Your task to perform on an android device: snooze an email in the gmail app Image 0: 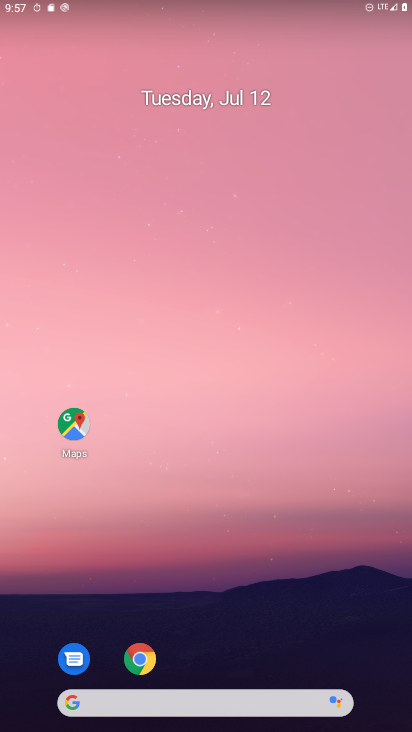
Step 0: drag from (361, 663) to (232, 75)
Your task to perform on an android device: snooze an email in the gmail app Image 1: 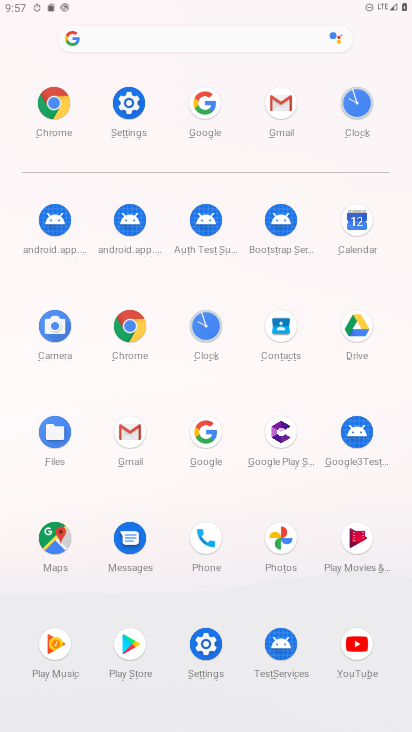
Step 1: click (131, 429)
Your task to perform on an android device: snooze an email in the gmail app Image 2: 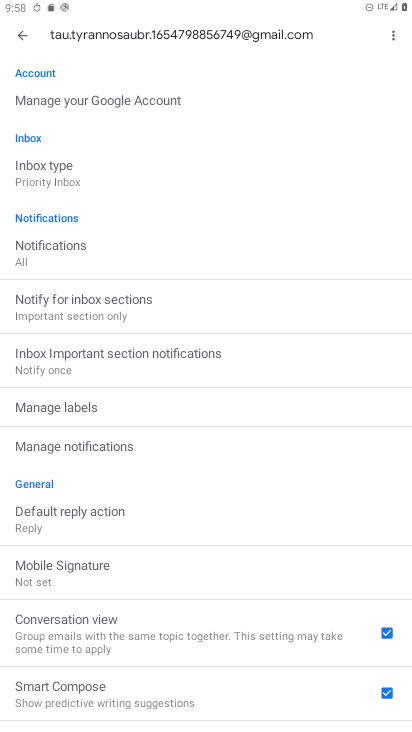
Step 2: press back button
Your task to perform on an android device: snooze an email in the gmail app Image 3: 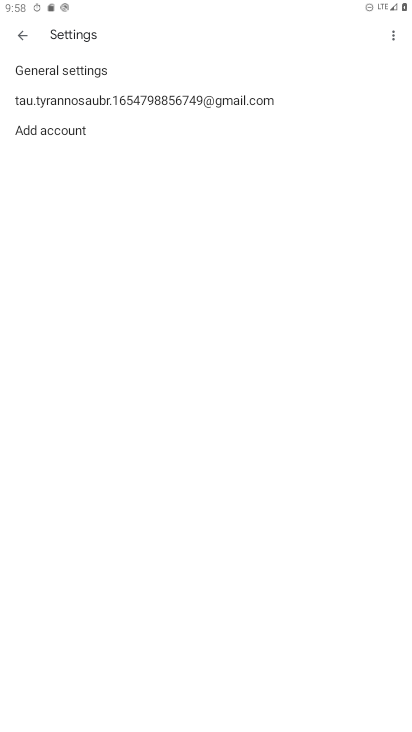
Step 3: press back button
Your task to perform on an android device: snooze an email in the gmail app Image 4: 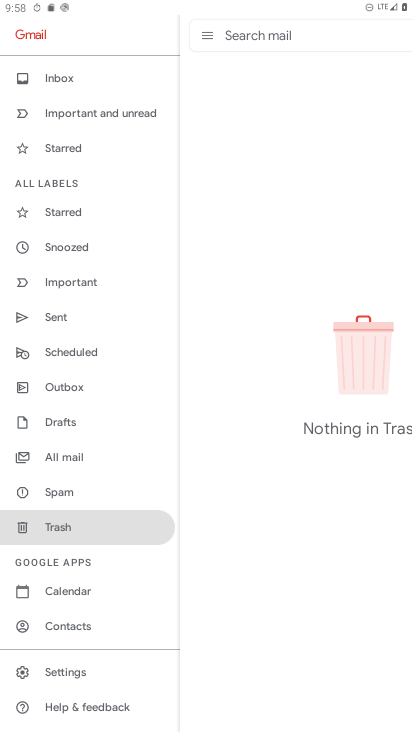
Step 4: click (77, 247)
Your task to perform on an android device: snooze an email in the gmail app Image 5: 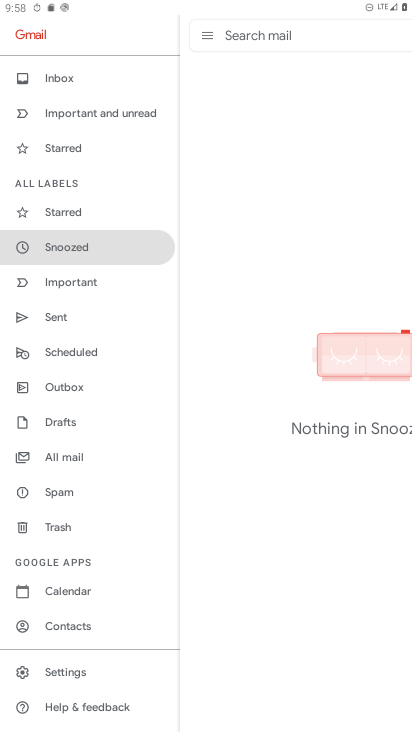
Step 5: task complete